Your task to perform on an android device: allow cookies in the chrome app Image 0: 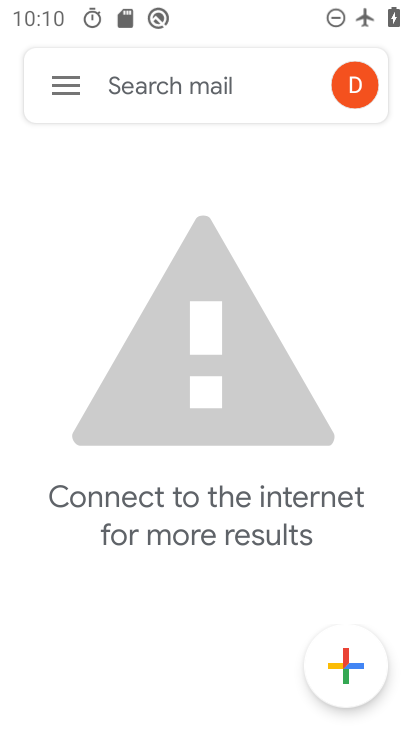
Step 0: press home button
Your task to perform on an android device: allow cookies in the chrome app Image 1: 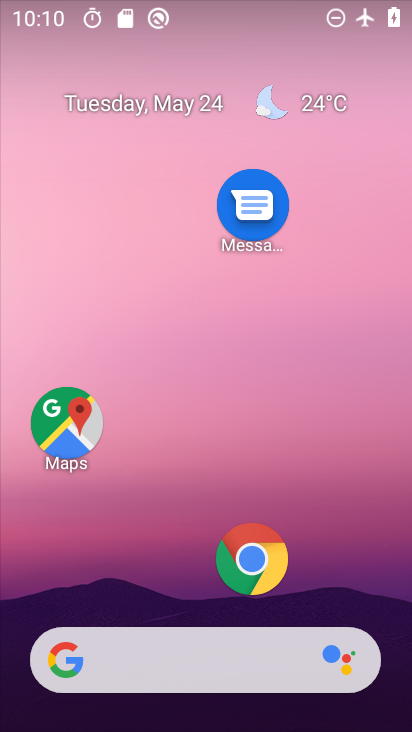
Step 1: click (244, 566)
Your task to perform on an android device: allow cookies in the chrome app Image 2: 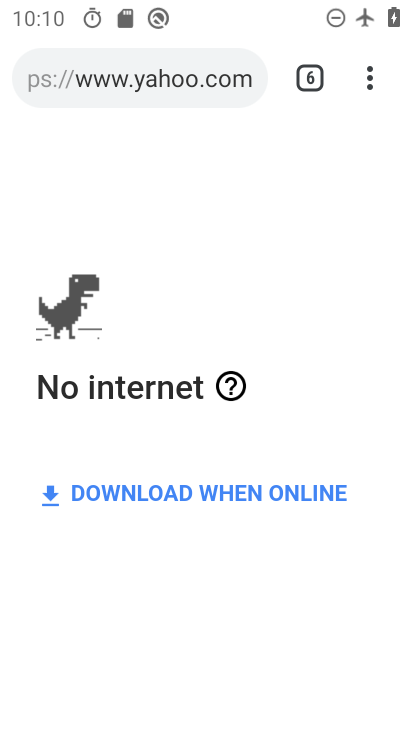
Step 2: drag from (360, 74) to (104, 629)
Your task to perform on an android device: allow cookies in the chrome app Image 3: 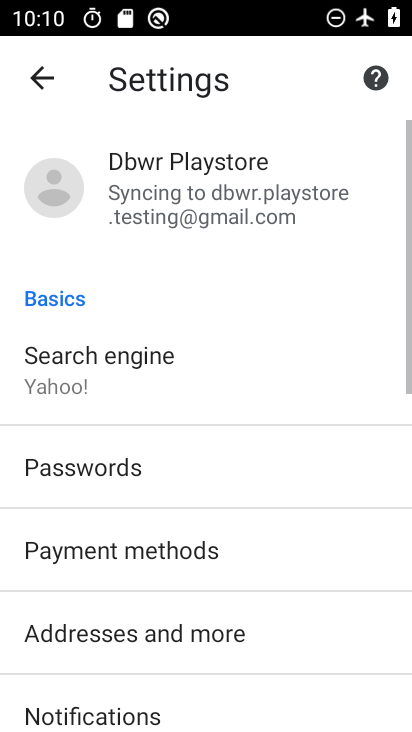
Step 3: drag from (146, 638) to (198, 298)
Your task to perform on an android device: allow cookies in the chrome app Image 4: 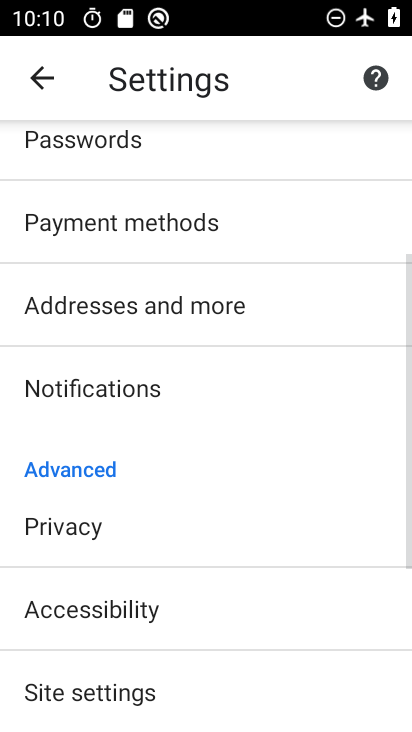
Step 4: drag from (121, 649) to (169, 403)
Your task to perform on an android device: allow cookies in the chrome app Image 5: 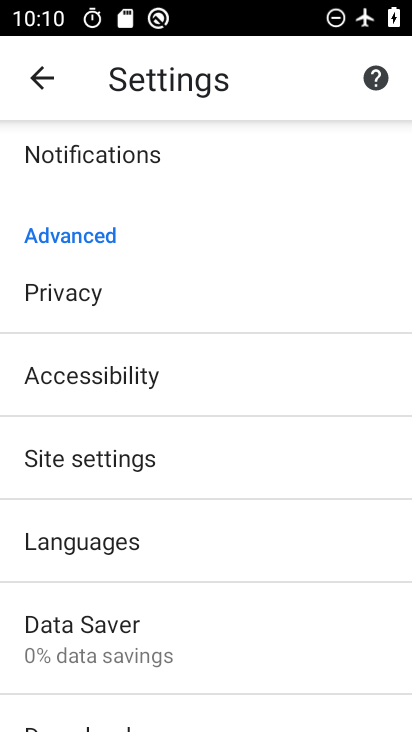
Step 5: click (164, 465)
Your task to perform on an android device: allow cookies in the chrome app Image 6: 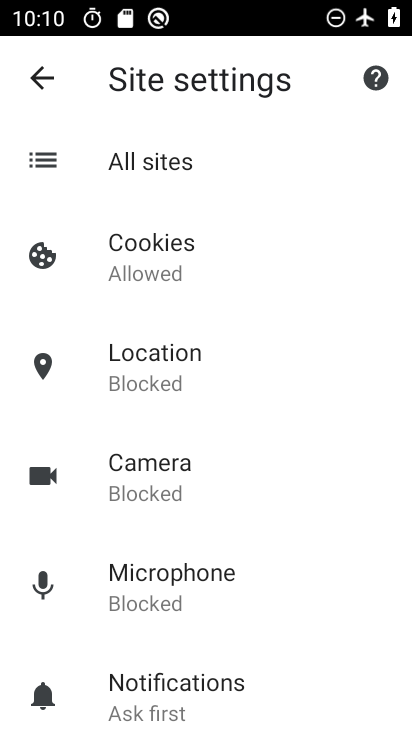
Step 6: click (204, 233)
Your task to perform on an android device: allow cookies in the chrome app Image 7: 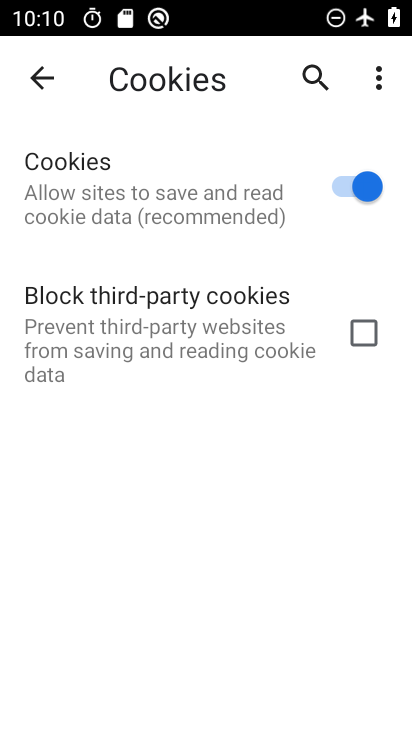
Step 7: task complete